Your task to perform on an android device: set the stopwatch Image 0: 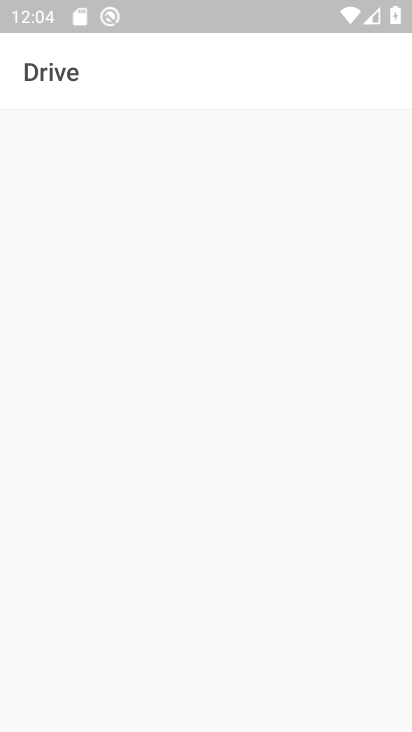
Step 0: press home button
Your task to perform on an android device: set the stopwatch Image 1: 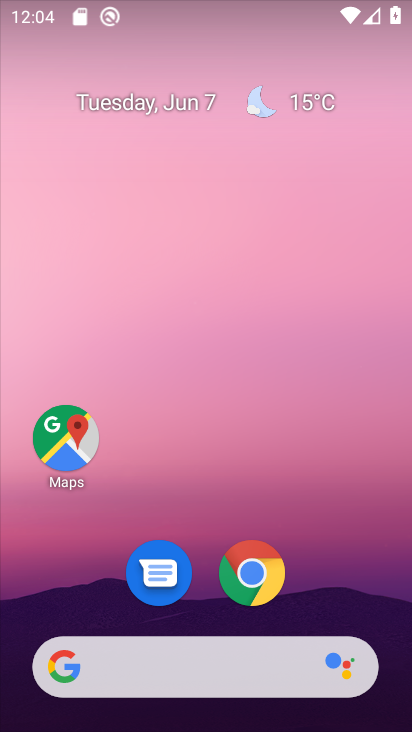
Step 1: drag from (210, 606) to (279, 143)
Your task to perform on an android device: set the stopwatch Image 2: 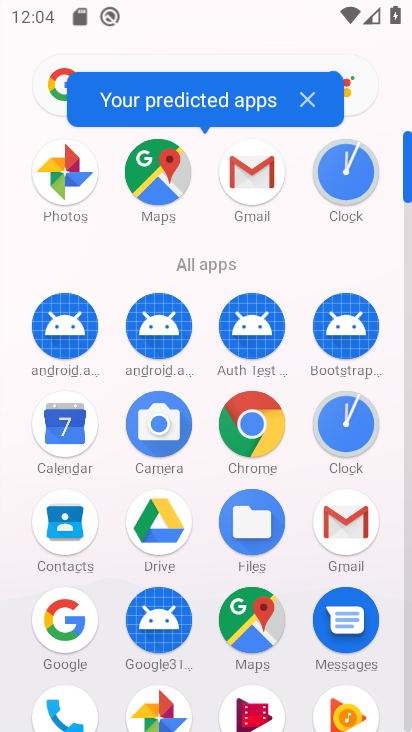
Step 2: click (349, 155)
Your task to perform on an android device: set the stopwatch Image 3: 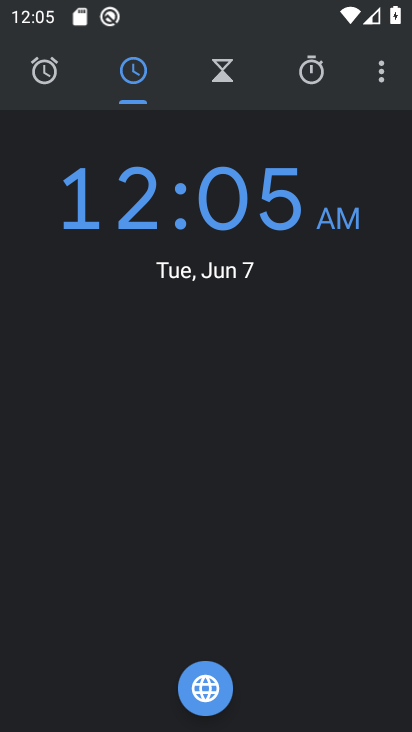
Step 3: click (312, 82)
Your task to perform on an android device: set the stopwatch Image 4: 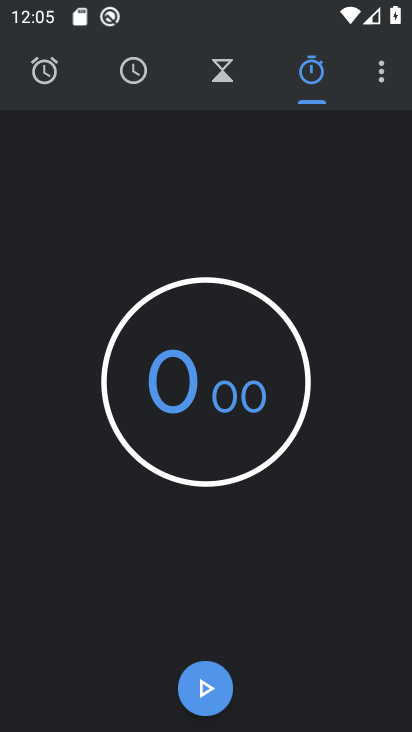
Step 4: click (221, 674)
Your task to perform on an android device: set the stopwatch Image 5: 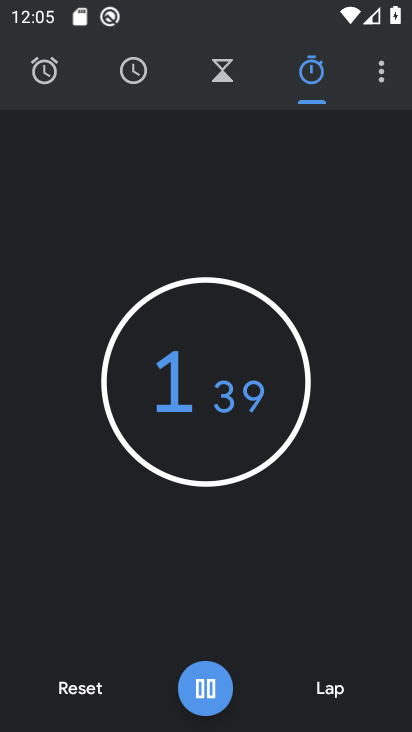
Step 5: task complete